Your task to perform on an android device: change keyboard looks Image 0: 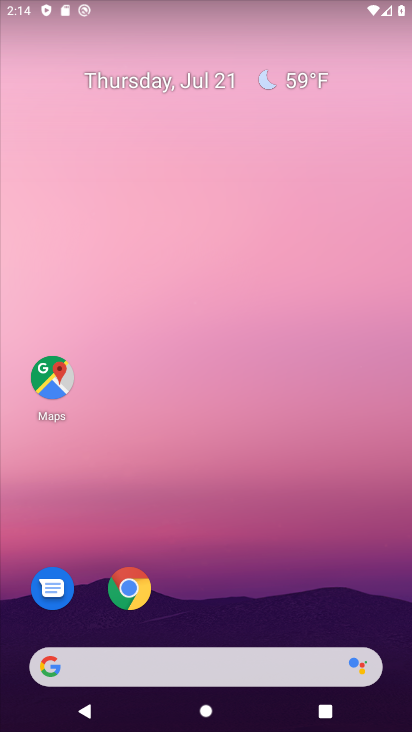
Step 0: drag from (401, 727) to (395, 3)
Your task to perform on an android device: change keyboard looks Image 1: 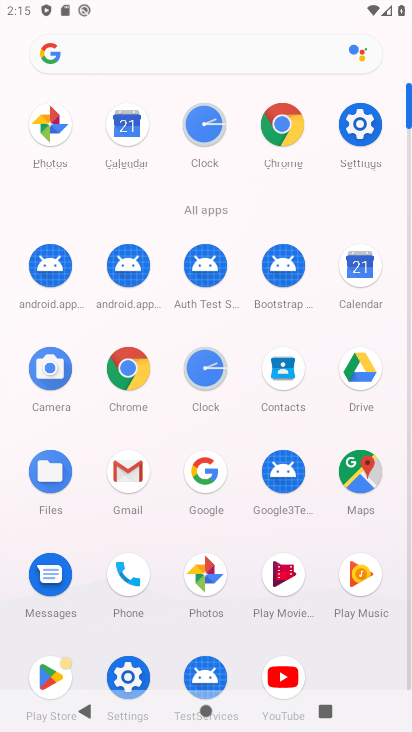
Step 1: click (339, 23)
Your task to perform on an android device: change keyboard looks Image 2: 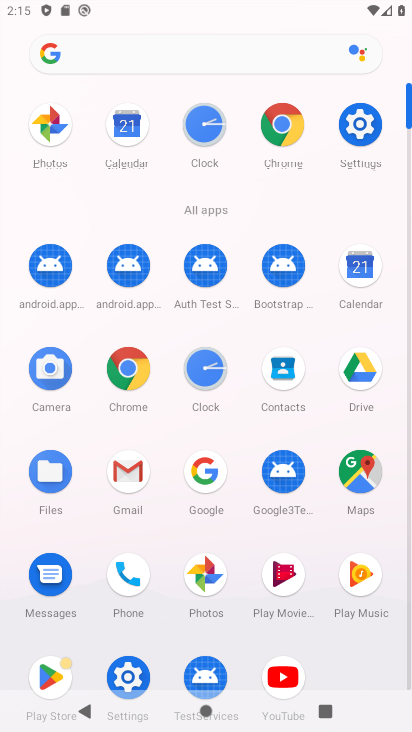
Step 2: click (357, 127)
Your task to perform on an android device: change keyboard looks Image 3: 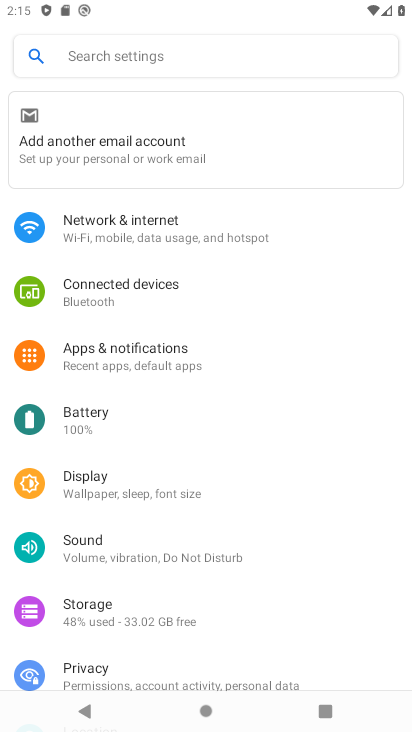
Step 3: drag from (381, 560) to (389, 150)
Your task to perform on an android device: change keyboard looks Image 4: 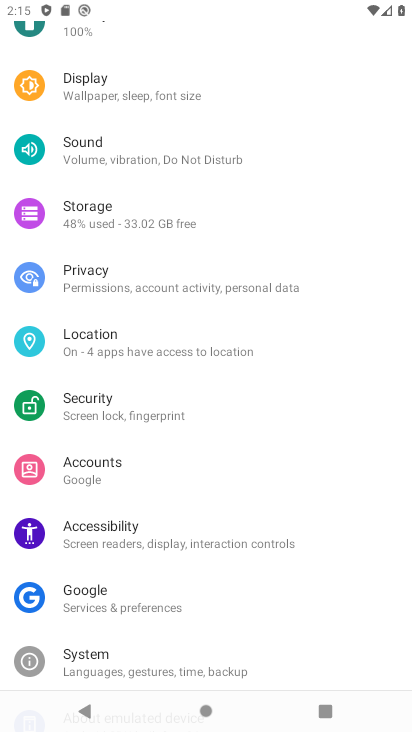
Step 4: drag from (386, 633) to (363, 287)
Your task to perform on an android device: change keyboard looks Image 5: 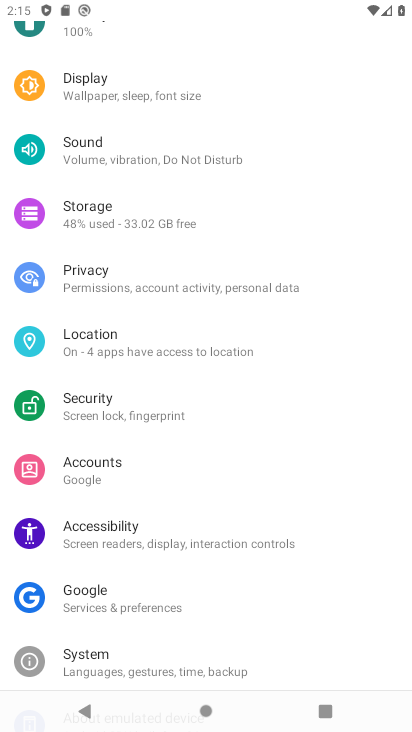
Step 5: click (80, 648)
Your task to perform on an android device: change keyboard looks Image 6: 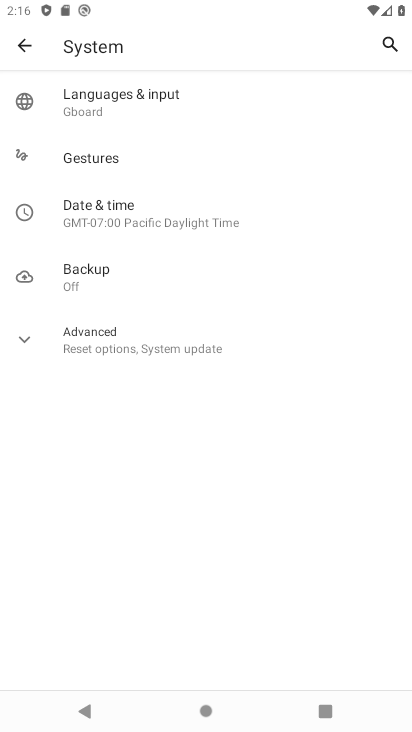
Step 6: click (104, 97)
Your task to perform on an android device: change keyboard looks Image 7: 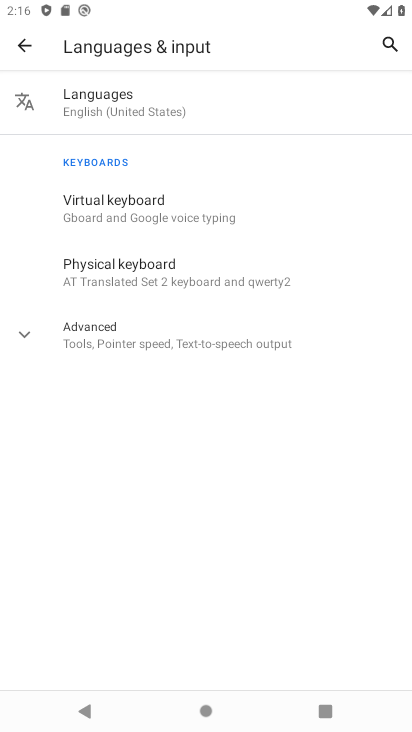
Step 7: click (120, 211)
Your task to perform on an android device: change keyboard looks Image 8: 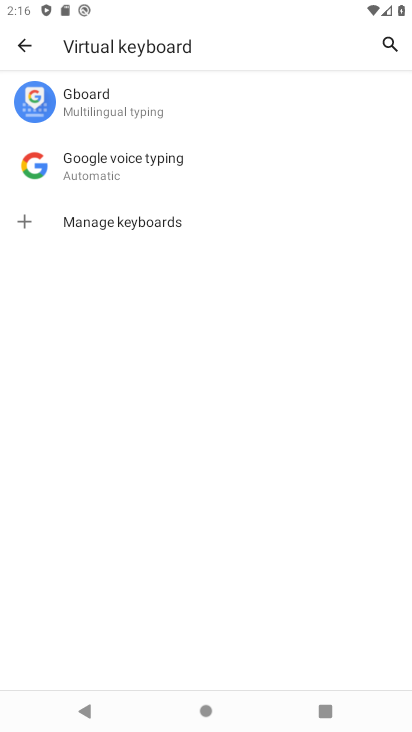
Step 8: click (84, 86)
Your task to perform on an android device: change keyboard looks Image 9: 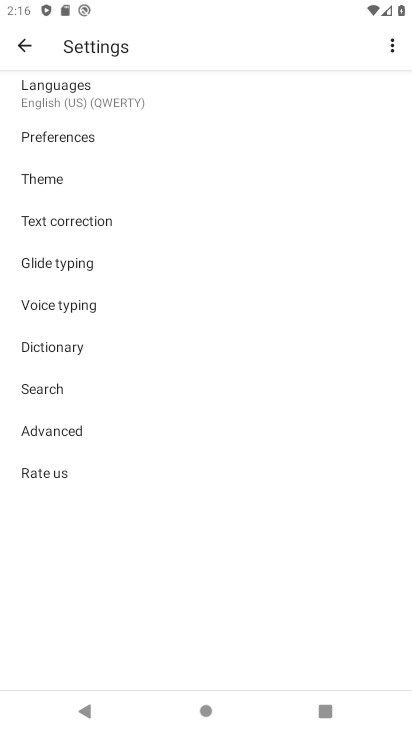
Step 9: click (43, 175)
Your task to perform on an android device: change keyboard looks Image 10: 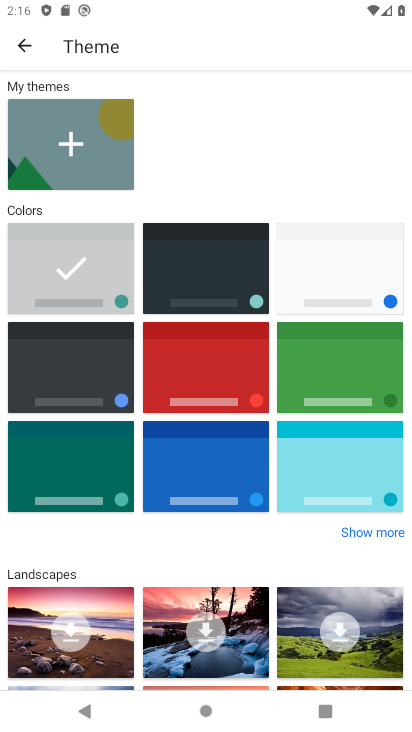
Step 10: click (235, 390)
Your task to perform on an android device: change keyboard looks Image 11: 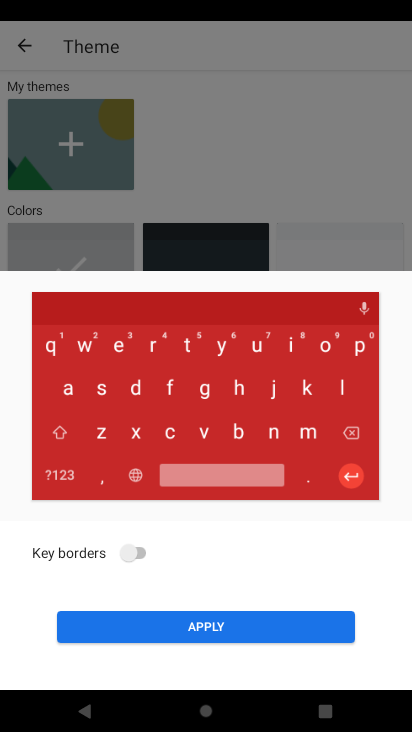
Step 11: click (175, 626)
Your task to perform on an android device: change keyboard looks Image 12: 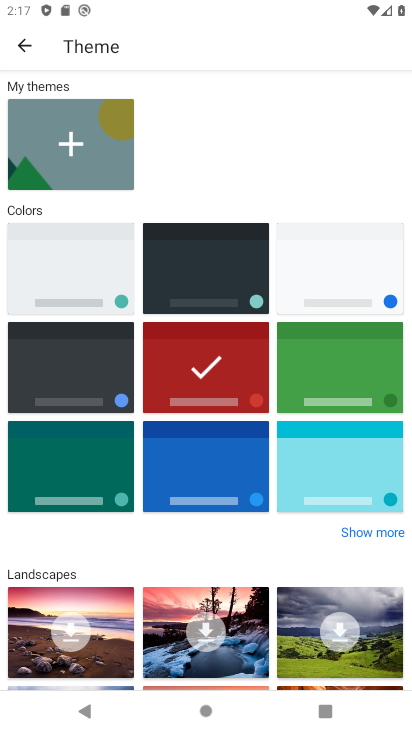
Step 12: click (187, 453)
Your task to perform on an android device: change keyboard looks Image 13: 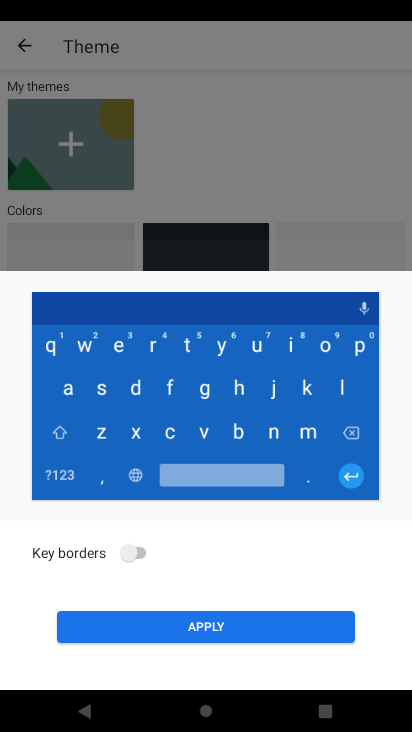
Step 13: click (186, 622)
Your task to perform on an android device: change keyboard looks Image 14: 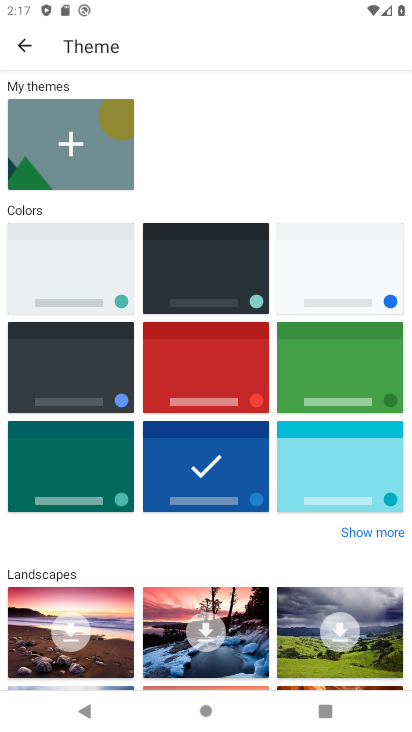
Step 14: task complete